Your task to perform on an android device: Open calendar and show me the third week of next month Image 0: 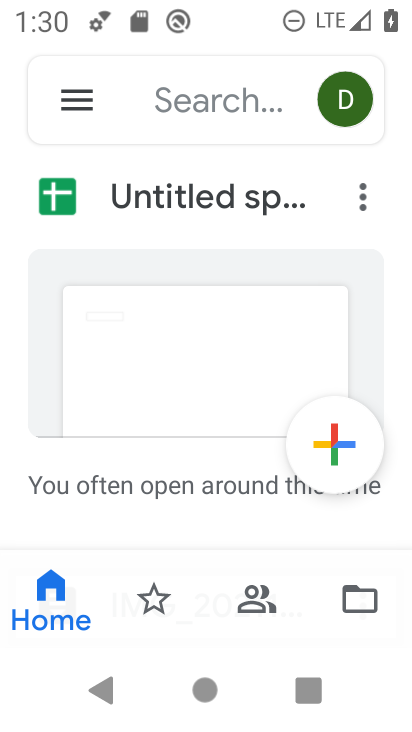
Step 0: press home button
Your task to perform on an android device: Open calendar and show me the third week of next month Image 1: 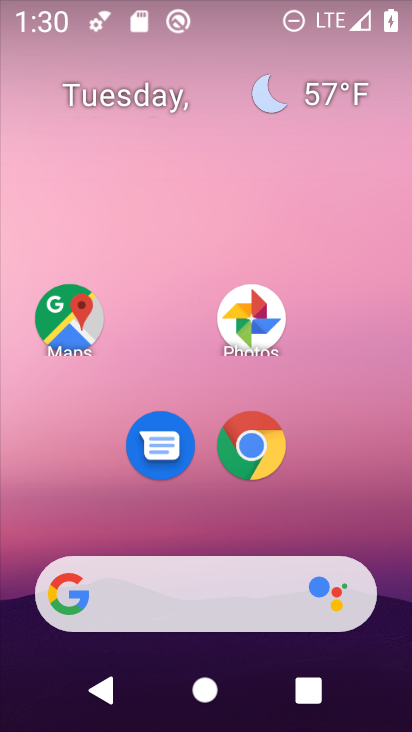
Step 1: drag from (392, 542) to (389, 156)
Your task to perform on an android device: Open calendar and show me the third week of next month Image 2: 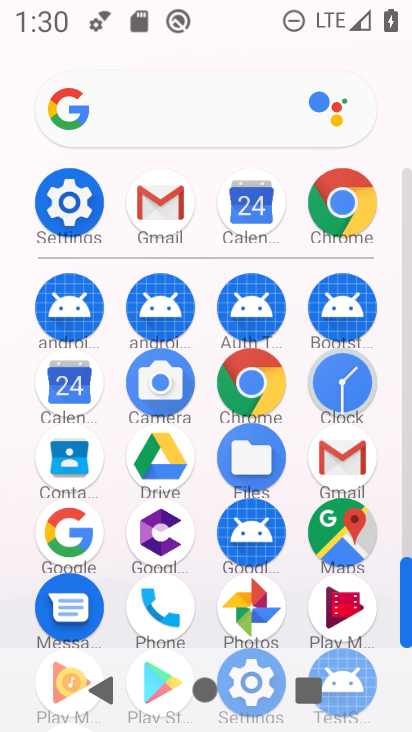
Step 2: click (69, 406)
Your task to perform on an android device: Open calendar and show me the third week of next month Image 3: 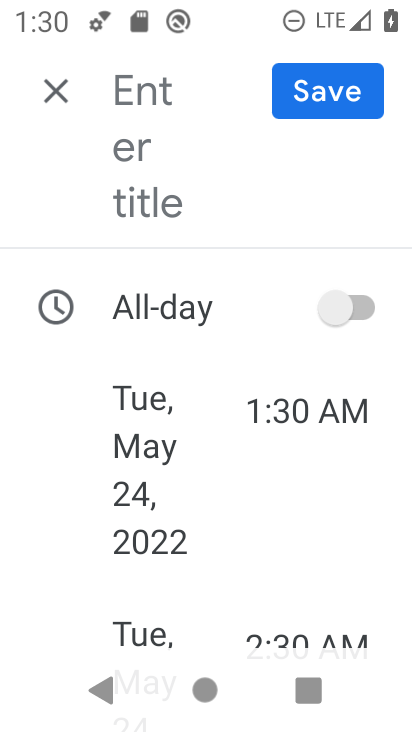
Step 3: click (42, 106)
Your task to perform on an android device: Open calendar and show me the third week of next month Image 4: 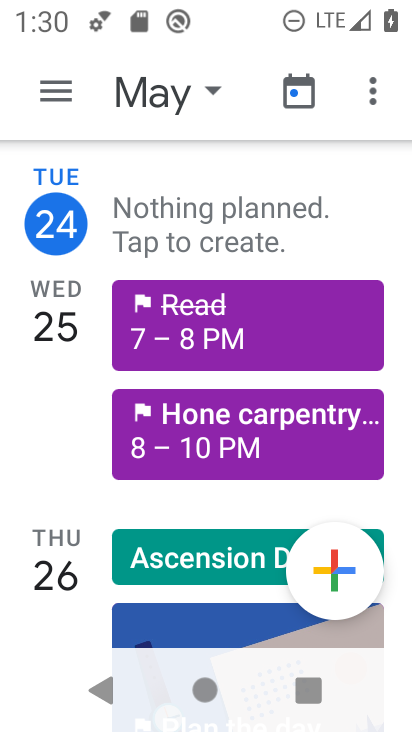
Step 4: click (218, 86)
Your task to perform on an android device: Open calendar and show me the third week of next month Image 5: 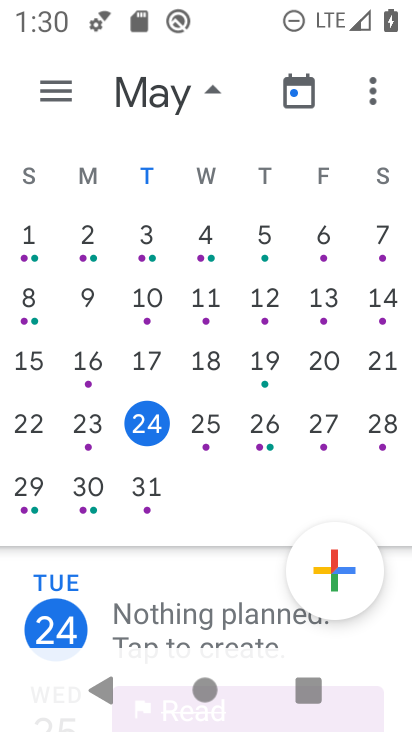
Step 5: drag from (399, 202) to (22, 192)
Your task to perform on an android device: Open calendar and show me the third week of next month Image 6: 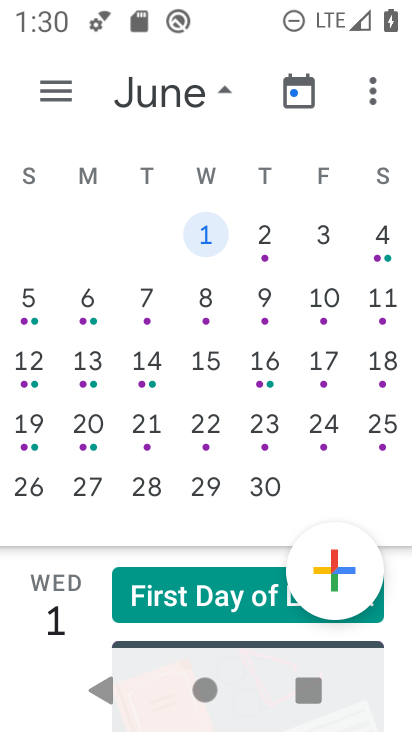
Step 6: click (88, 361)
Your task to perform on an android device: Open calendar and show me the third week of next month Image 7: 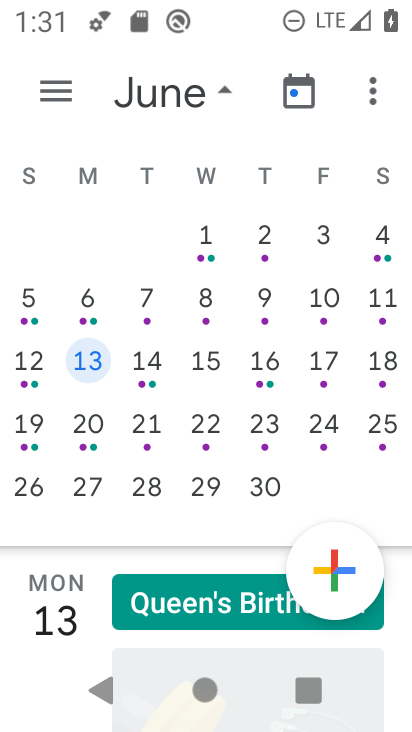
Step 7: task complete